Your task to perform on an android device: find which apps use the phone's location Image 0: 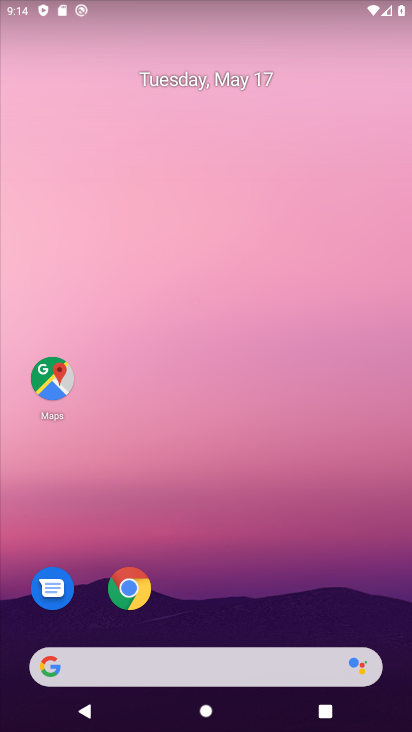
Step 0: drag from (214, 627) to (178, 3)
Your task to perform on an android device: find which apps use the phone's location Image 1: 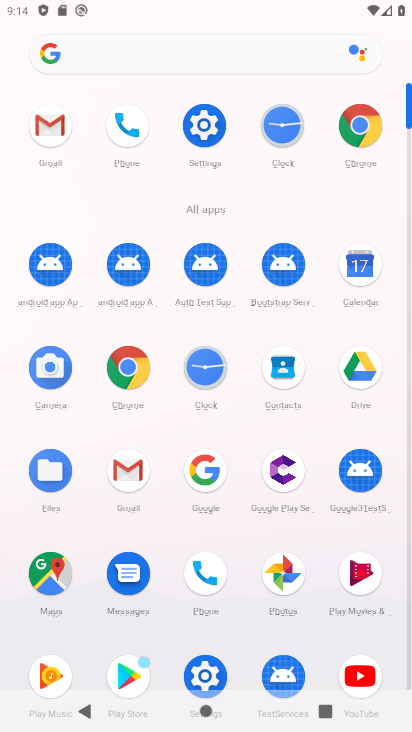
Step 1: click (201, 129)
Your task to perform on an android device: find which apps use the phone's location Image 2: 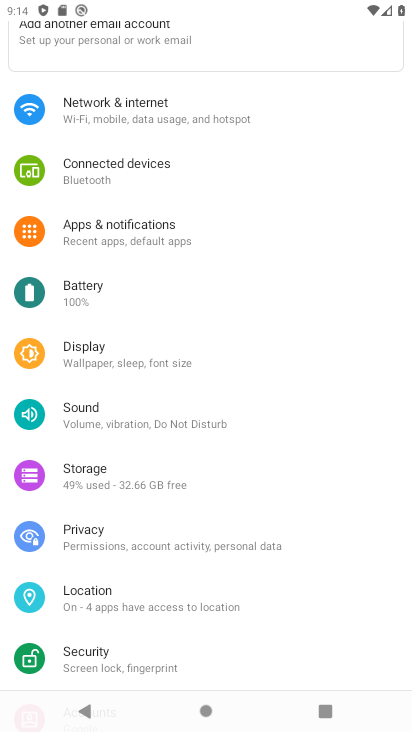
Step 2: drag from (173, 471) to (146, 288)
Your task to perform on an android device: find which apps use the phone's location Image 3: 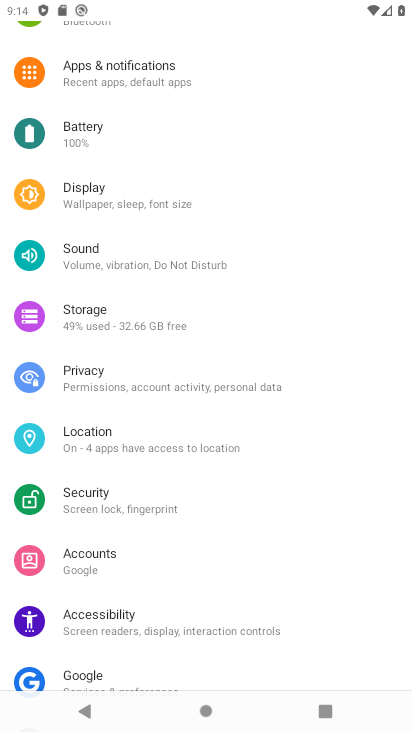
Step 3: click (98, 436)
Your task to perform on an android device: find which apps use the phone's location Image 4: 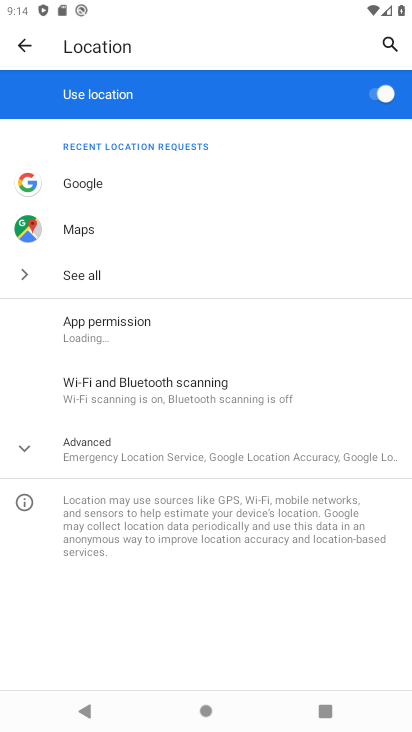
Step 4: click (109, 429)
Your task to perform on an android device: find which apps use the phone's location Image 5: 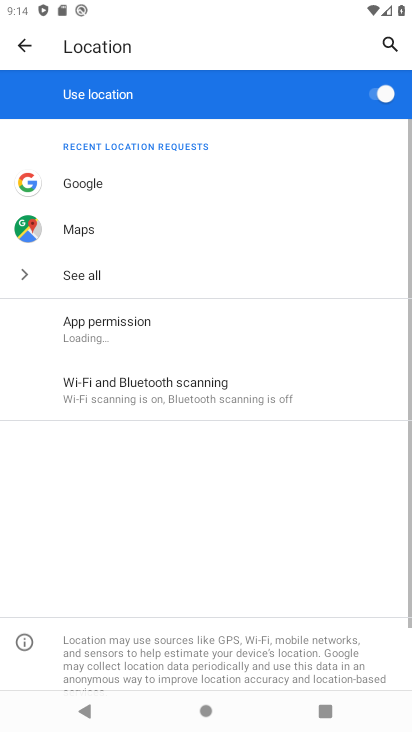
Step 5: drag from (109, 429) to (105, 336)
Your task to perform on an android device: find which apps use the phone's location Image 6: 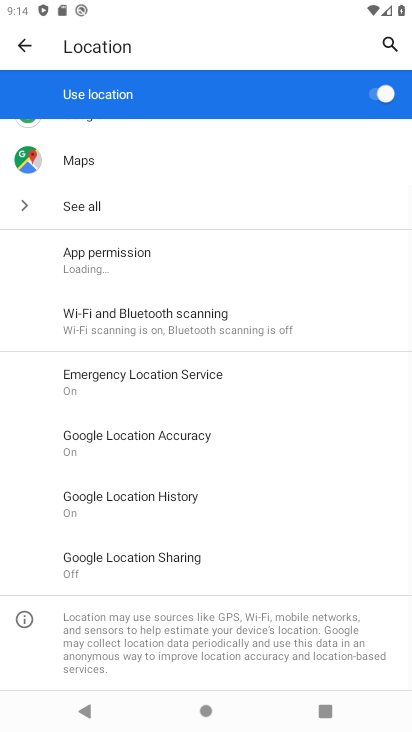
Step 6: click (102, 267)
Your task to perform on an android device: find which apps use the phone's location Image 7: 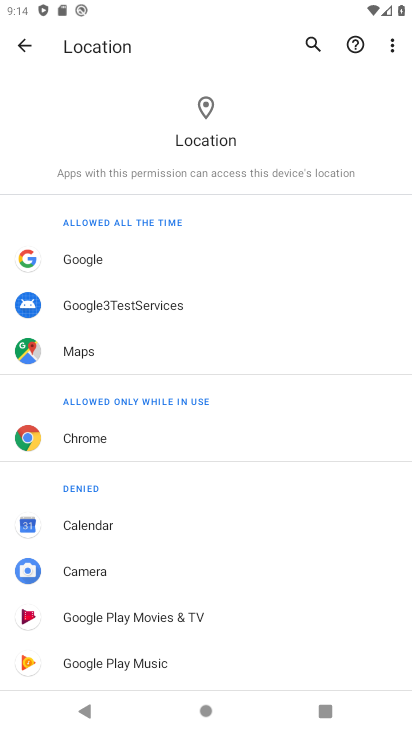
Step 7: task complete